Your task to perform on an android device: Open Google Chrome and click the shortcut for Amazon.com Image 0: 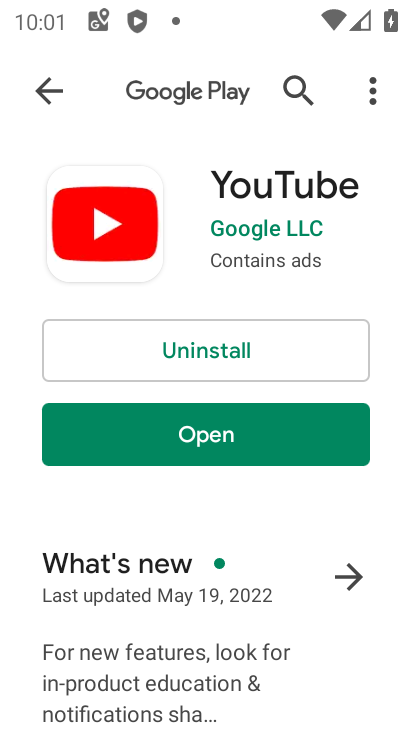
Step 0: press home button
Your task to perform on an android device: Open Google Chrome and click the shortcut for Amazon.com Image 1: 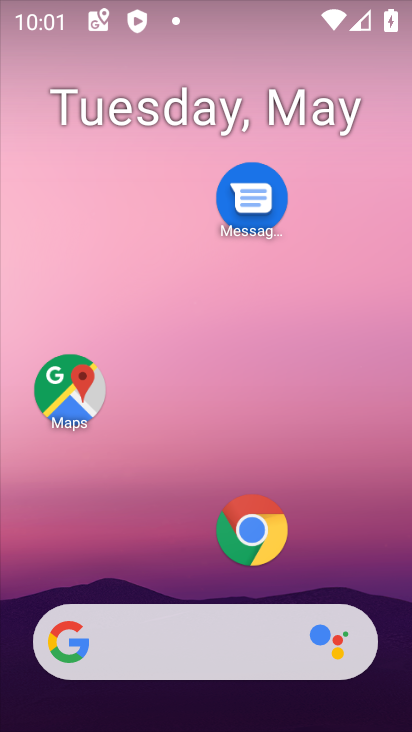
Step 1: drag from (193, 595) to (159, 258)
Your task to perform on an android device: Open Google Chrome and click the shortcut for Amazon.com Image 2: 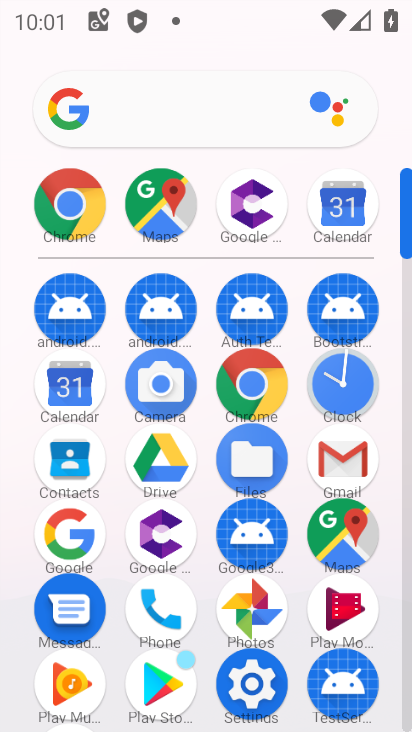
Step 2: click (250, 391)
Your task to perform on an android device: Open Google Chrome and click the shortcut for Amazon.com Image 3: 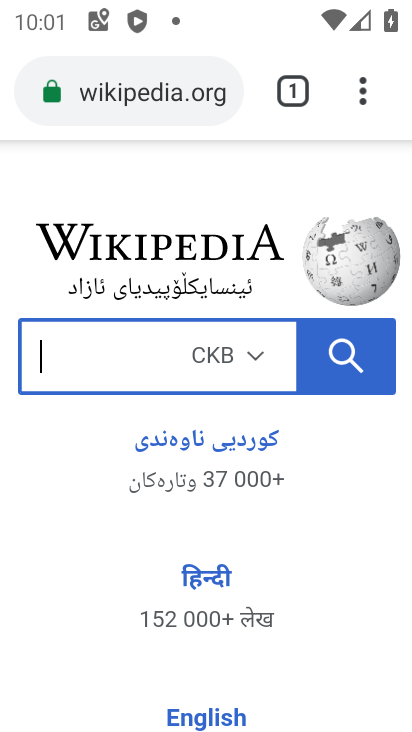
Step 3: press back button
Your task to perform on an android device: Open Google Chrome and click the shortcut for Amazon.com Image 4: 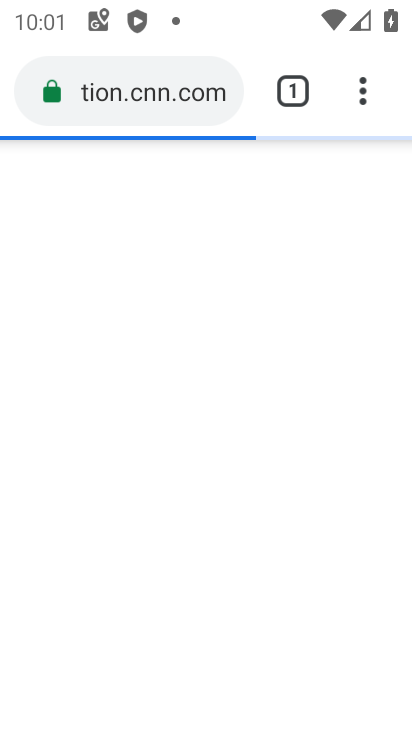
Step 4: press back button
Your task to perform on an android device: Open Google Chrome and click the shortcut for Amazon.com Image 5: 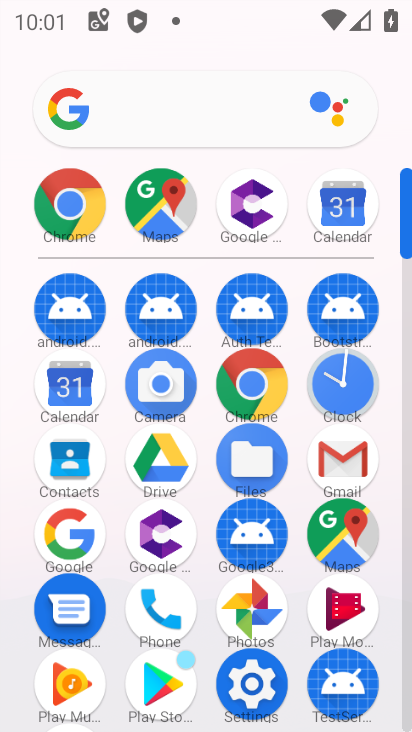
Step 5: click (76, 210)
Your task to perform on an android device: Open Google Chrome and click the shortcut for Amazon.com Image 6: 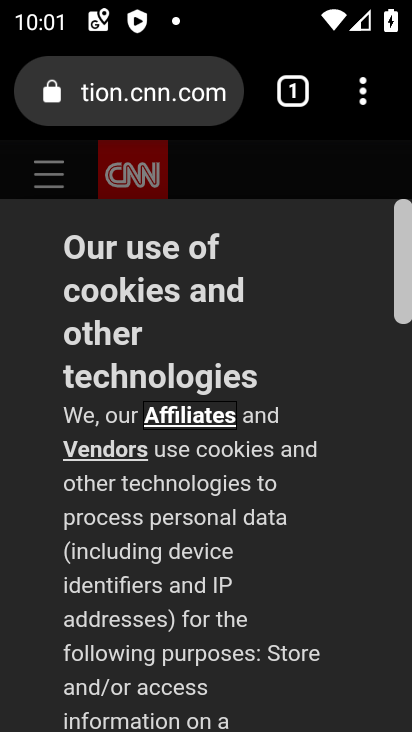
Step 6: click (126, 105)
Your task to perform on an android device: Open Google Chrome and click the shortcut for Amazon.com Image 7: 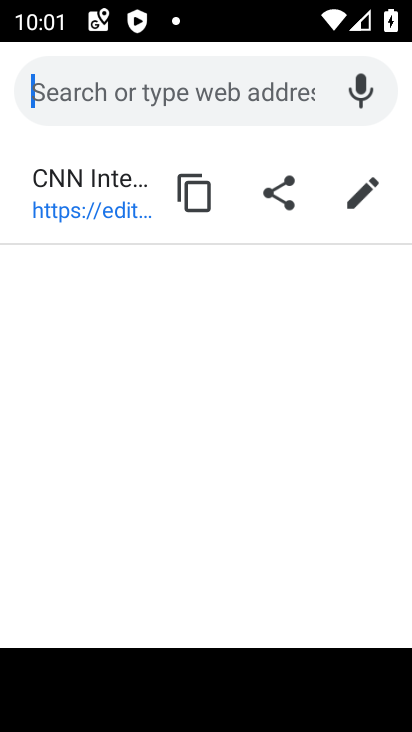
Step 7: type "www.amazon.com"
Your task to perform on an android device: Open Google Chrome and click the shortcut for Amazon.com Image 8: 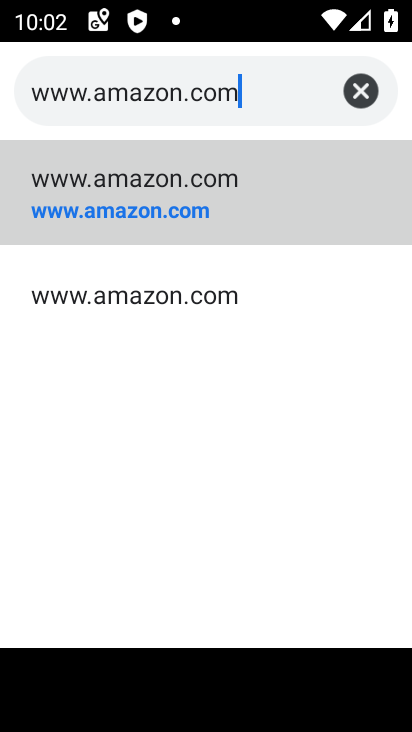
Step 8: click (149, 209)
Your task to perform on an android device: Open Google Chrome and click the shortcut for Amazon.com Image 9: 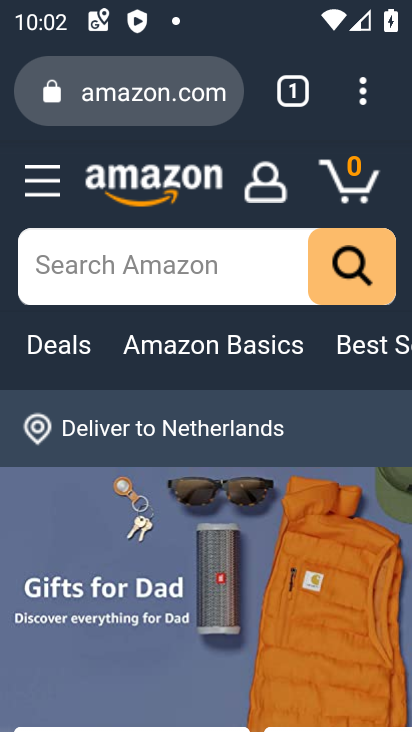
Step 9: task complete